Your task to perform on an android device: Check the weather Image 0: 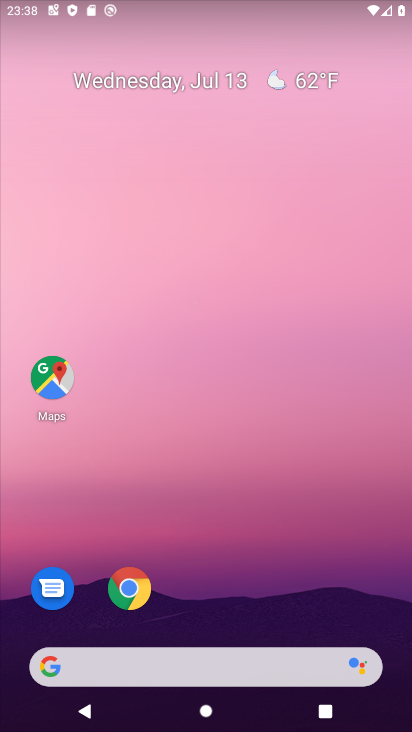
Step 0: drag from (220, 648) to (203, 234)
Your task to perform on an android device: Check the weather Image 1: 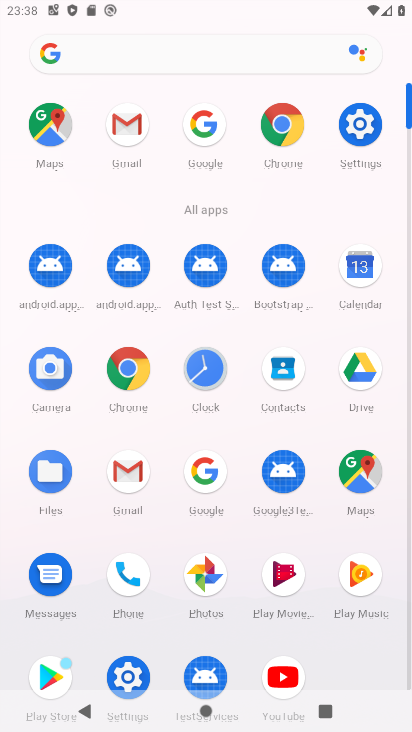
Step 1: click (215, 463)
Your task to perform on an android device: Check the weather Image 2: 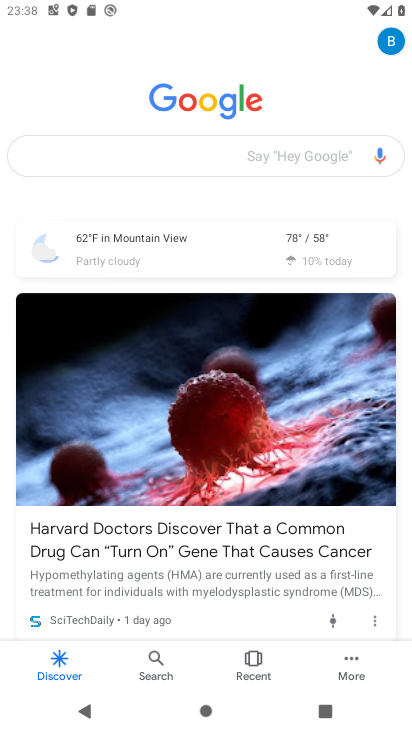
Step 2: click (66, 159)
Your task to perform on an android device: Check the weather Image 3: 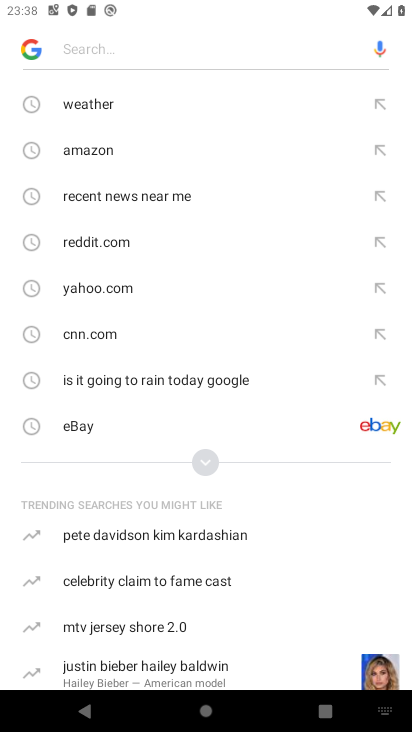
Step 3: click (97, 108)
Your task to perform on an android device: Check the weather Image 4: 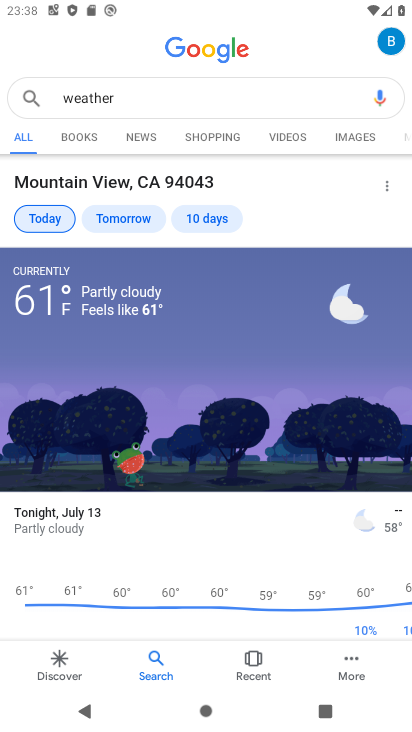
Step 4: task complete